Your task to perform on an android device: turn smart compose on in the gmail app Image 0: 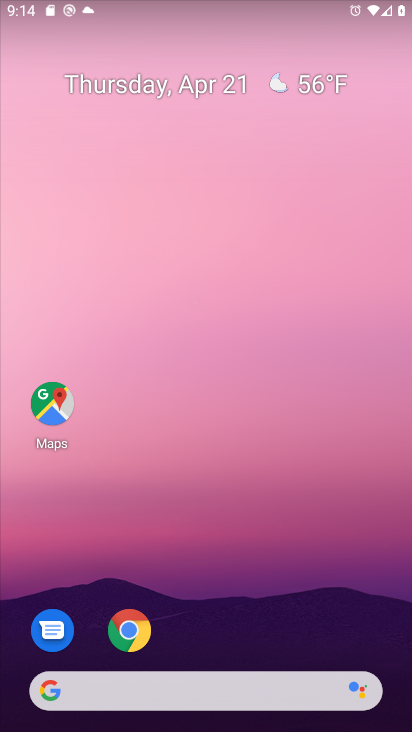
Step 0: click (339, 273)
Your task to perform on an android device: turn smart compose on in the gmail app Image 1: 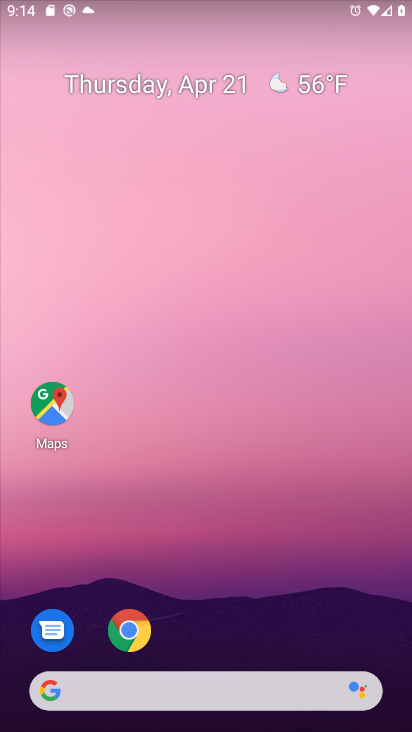
Step 1: drag from (178, 612) to (220, 138)
Your task to perform on an android device: turn smart compose on in the gmail app Image 2: 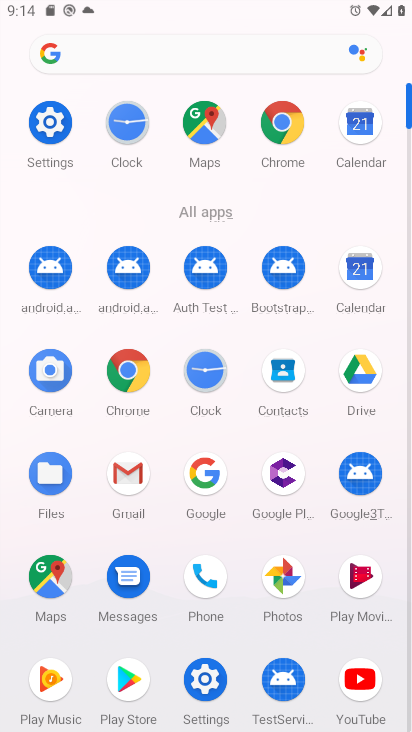
Step 2: click (139, 490)
Your task to perform on an android device: turn smart compose on in the gmail app Image 3: 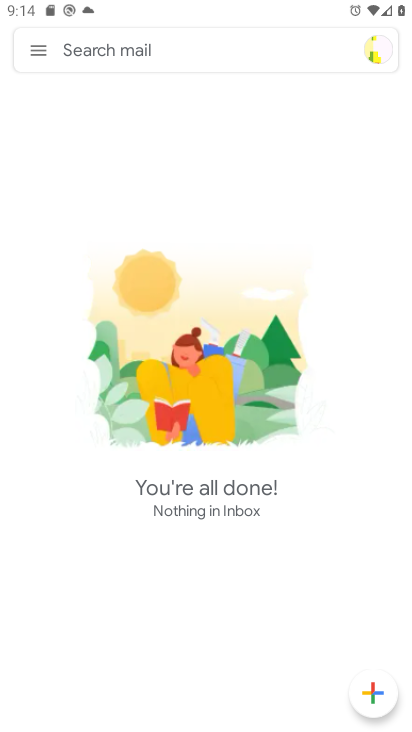
Step 3: click (37, 65)
Your task to perform on an android device: turn smart compose on in the gmail app Image 4: 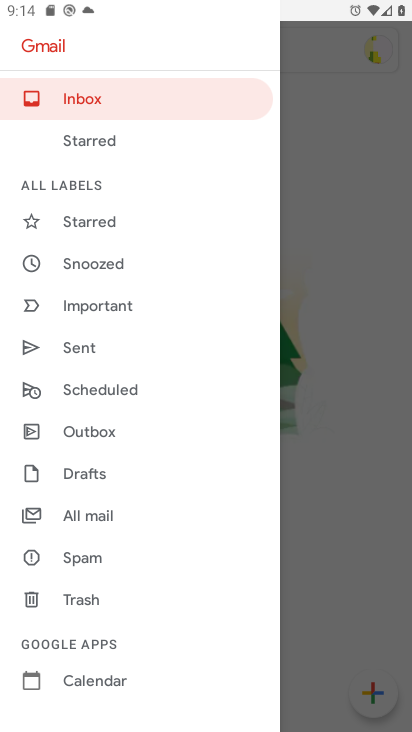
Step 4: drag from (77, 568) to (209, 105)
Your task to perform on an android device: turn smart compose on in the gmail app Image 5: 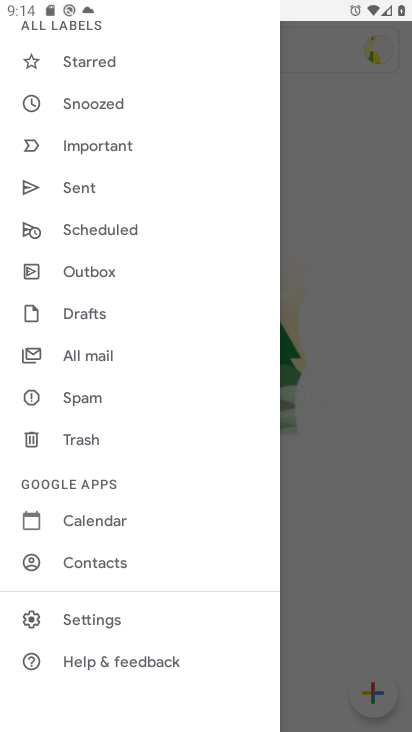
Step 5: click (108, 617)
Your task to perform on an android device: turn smart compose on in the gmail app Image 6: 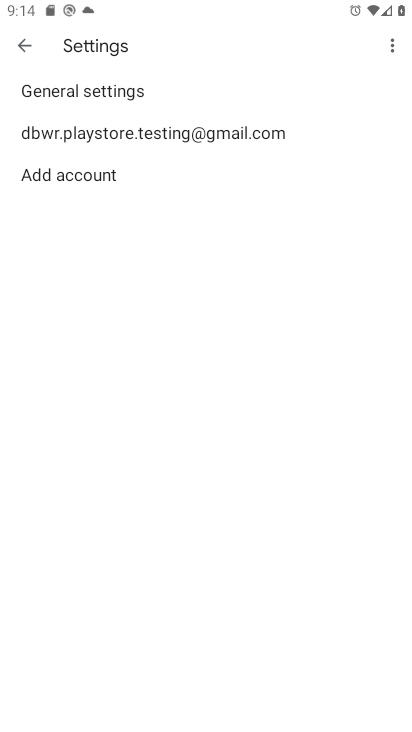
Step 6: click (91, 125)
Your task to perform on an android device: turn smart compose on in the gmail app Image 7: 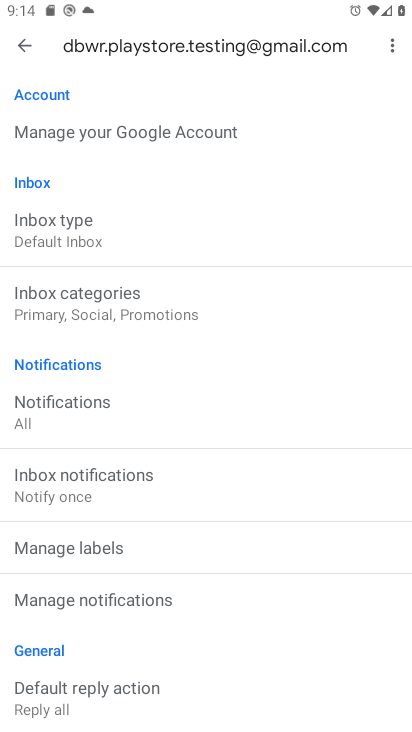
Step 7: task complete